Your task to perform on an android device: What is the news today? Image 0: 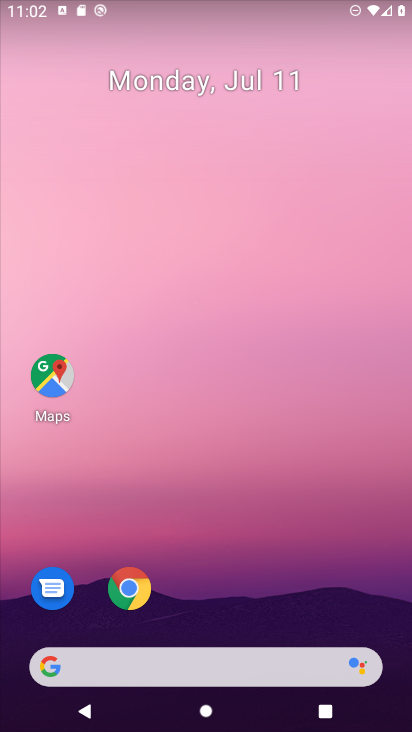
Step 0: drag from (370, 610) to (260, 27)
Your task to perform on an android device: What is the news today? Image 1: 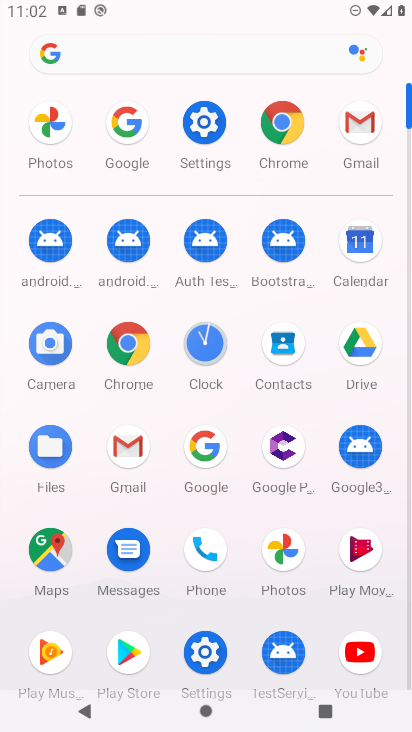
Step 1: click (208, 428)
Your task to perform on an android device: What is the news today? Image 2: 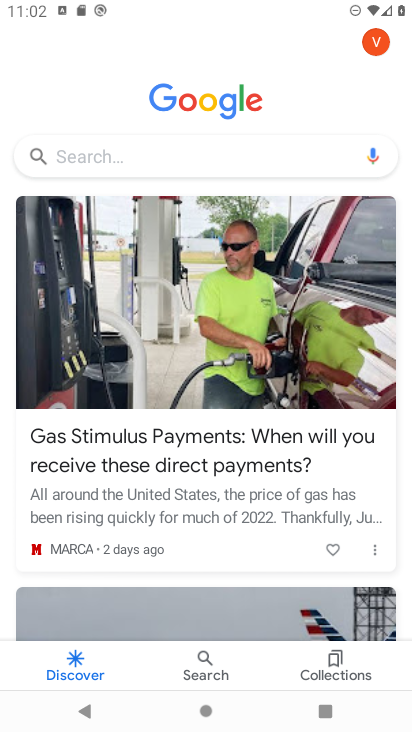
Step 2: click (107, 149)
Your task to perform on an android device: What is the news today? Image 3: 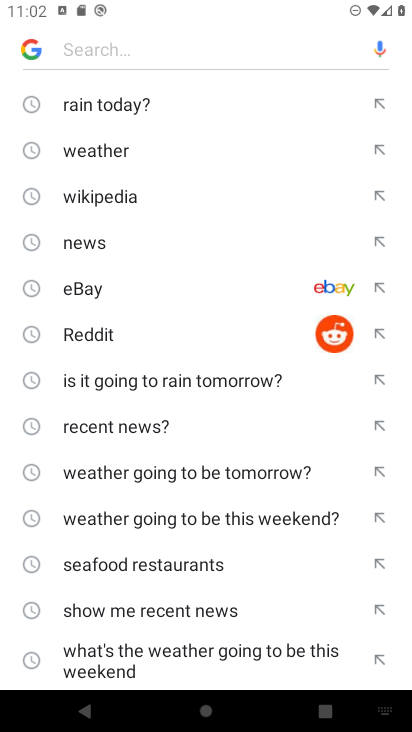
Step 3: type "What is the news today?"
Your task to perform on an android device: What is the news today? Image 4: 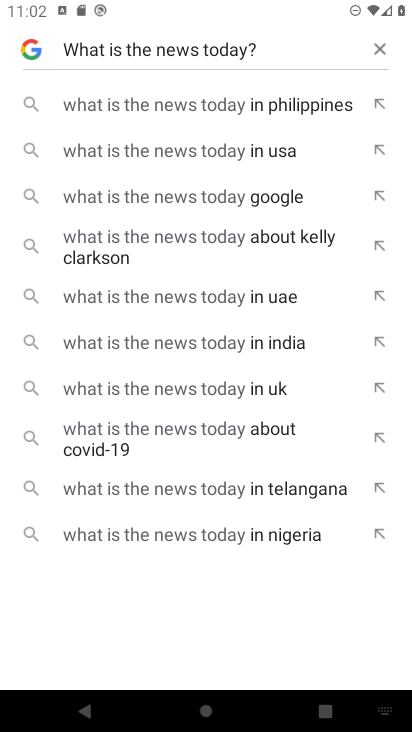
Step 4: click (212, 201)
Your task to perform on an android device: What is the news today? Image 5: 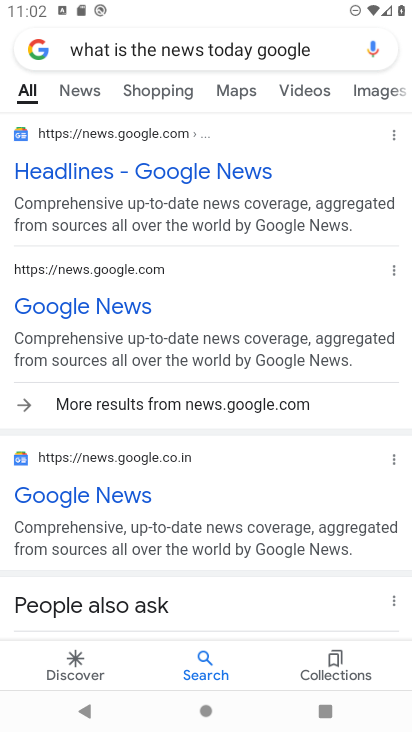
Step 5: task complete